Your task to perform on an android device: install app "Instagram" Image 0: 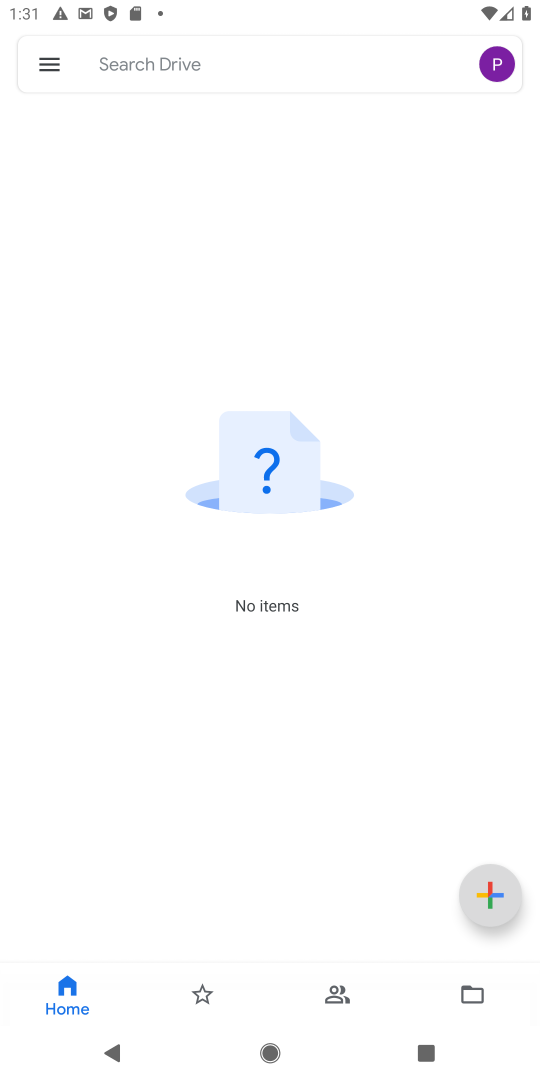
Step 0: press home button
Your task to perform on an android device: install app "Instagram" Image 1: 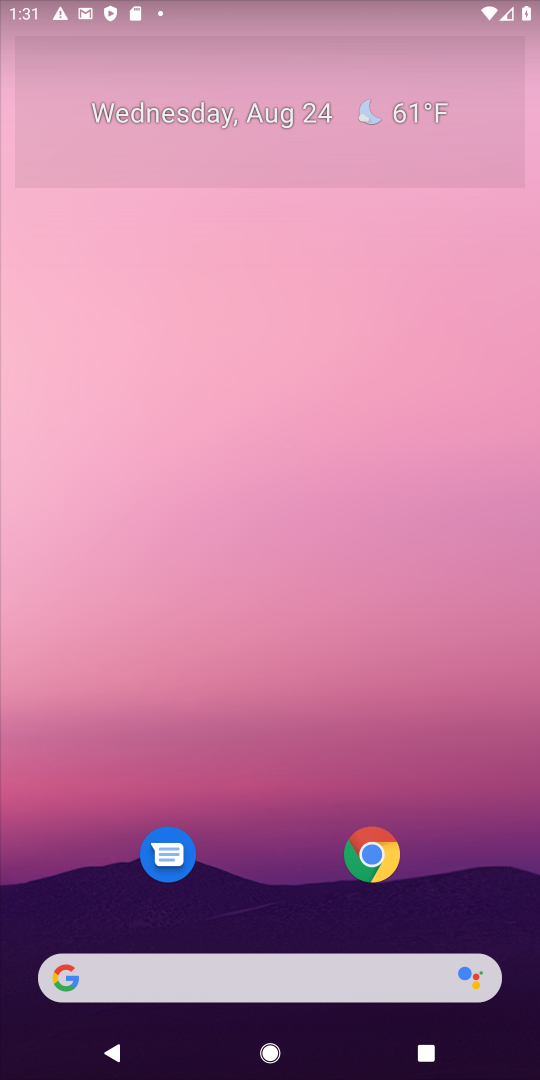
Step 1: drag from (460, 778) to (444, 109)
Your task to perform on an android device: install app "Instagram" Image 2: 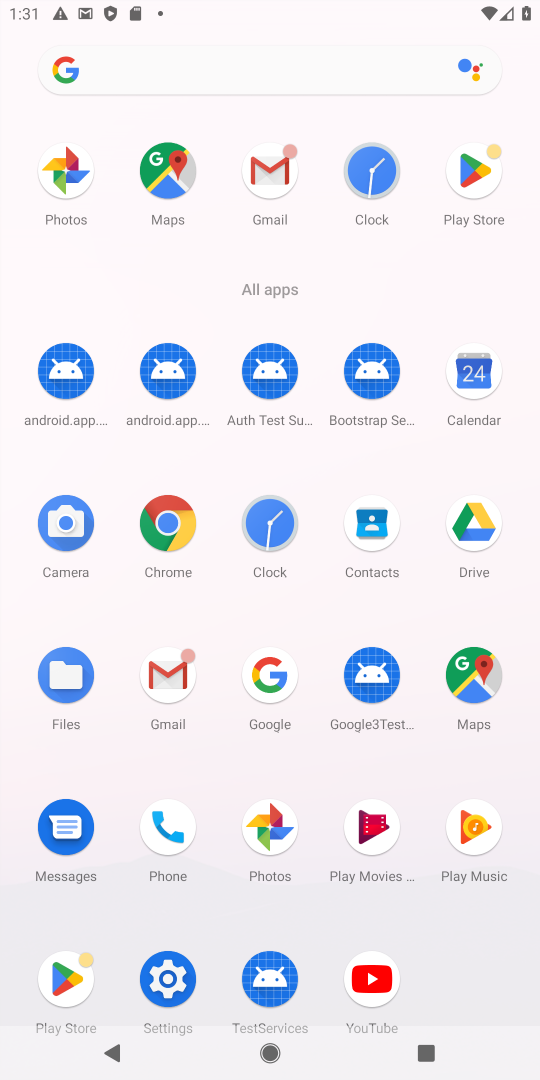
Step 2: click (478, 175)
Your task to perform on an android device: install app "Instagram" Image 3: 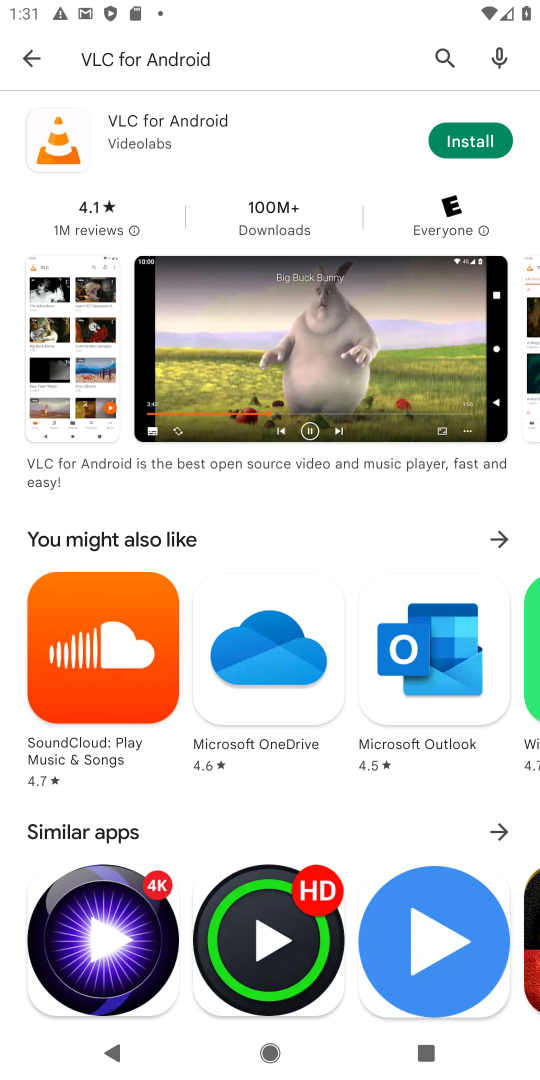
Step 3: press back button
Your task to perform on an android device: install app "Instagram" Image 4: 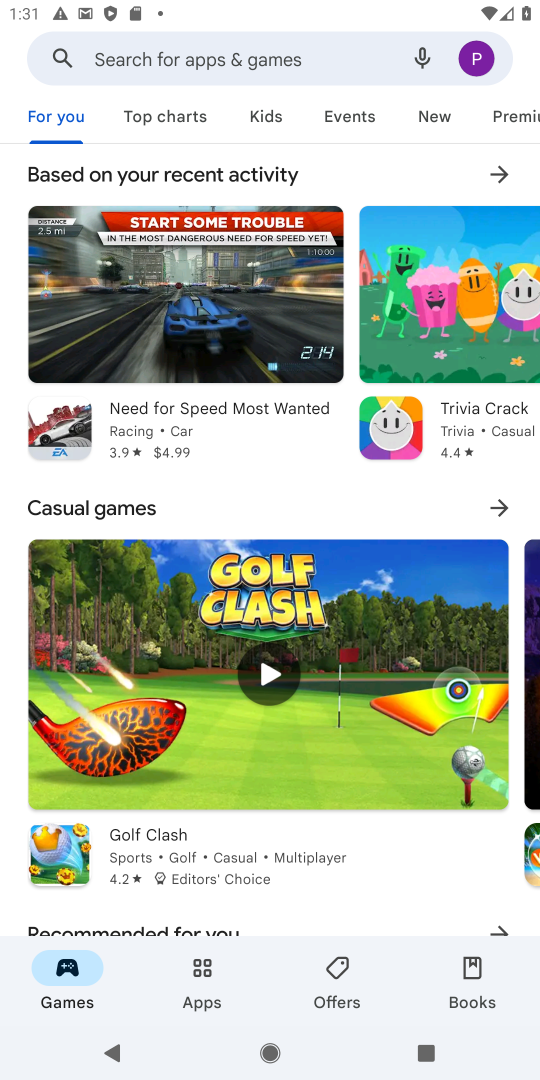
Step 4: click (313, 49)
Your task to perform on an android device: install app "Instagram" Image 5: 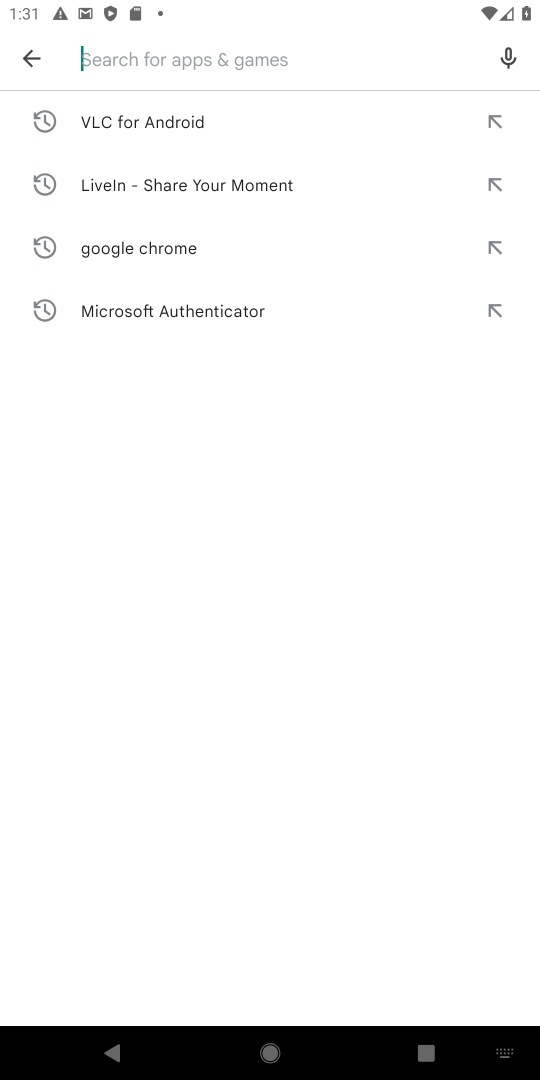
Step 5: type "Instagram"
Your task to perform on an android device: install app "Instagram" Image 6: 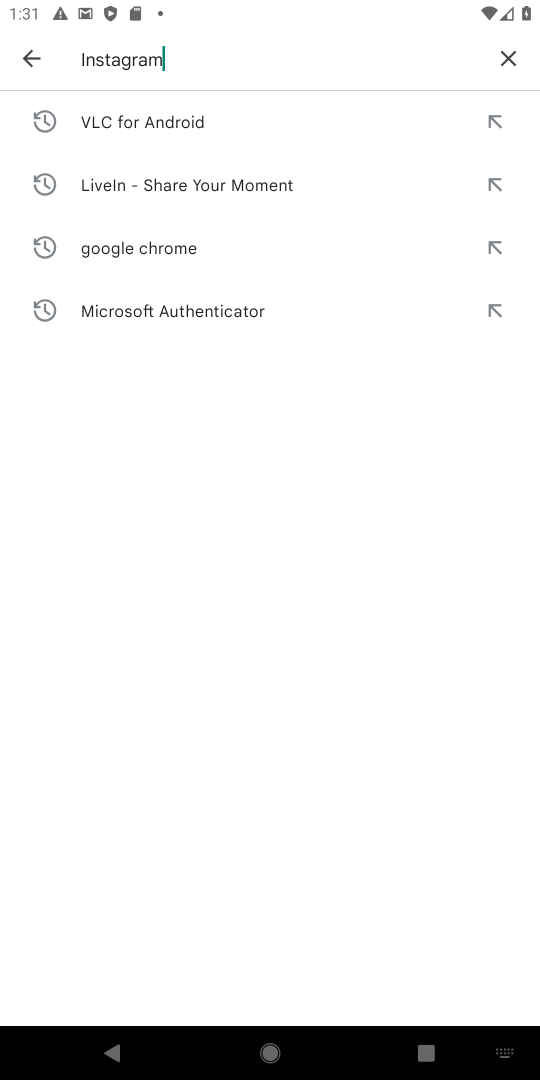
Step 6: press enter
Your task to perform on an android device: install app "Instagram" Image 7: 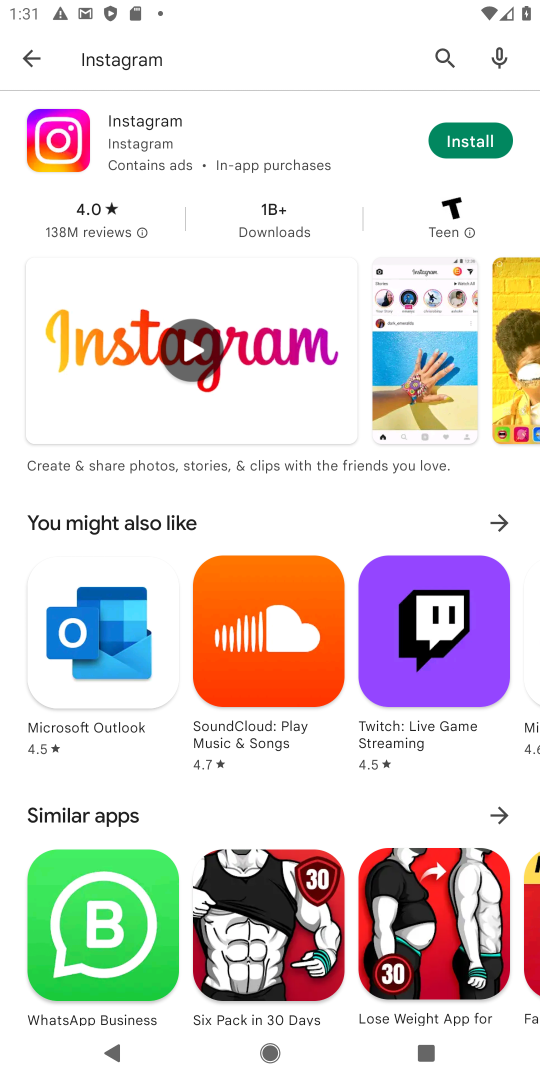
Step 7: click (478, 142)
Your task to perform on an android device: install app "Instagram" Image 8: 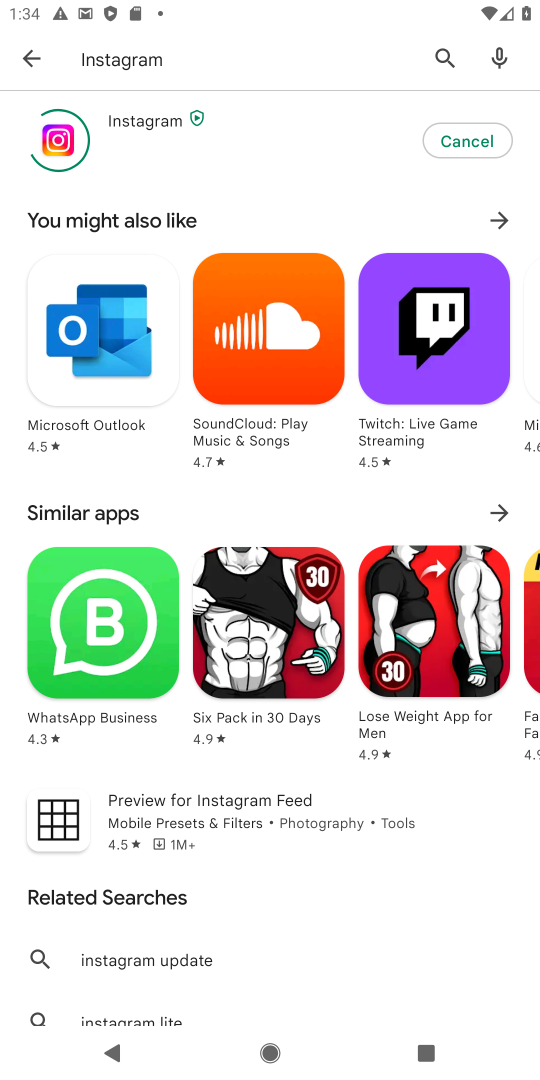
Step 8: task complete